Your task to perform on an android device: What's the weather going to be tomorrow? Image 0: 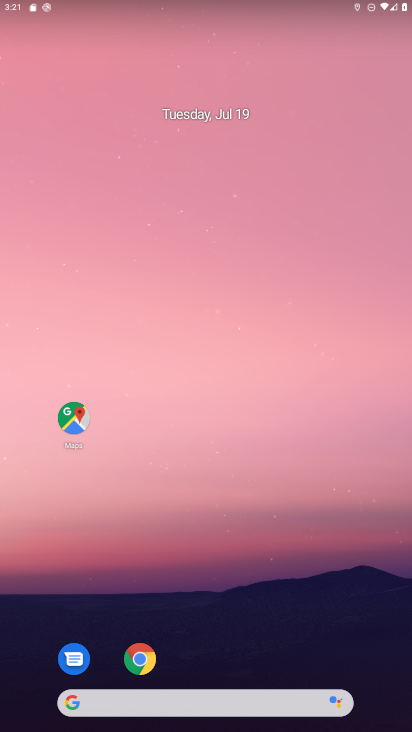
Step 0: click (197, 704)
Your task to perform on an android device: What's the weather going to be tomorrow? Image 1: 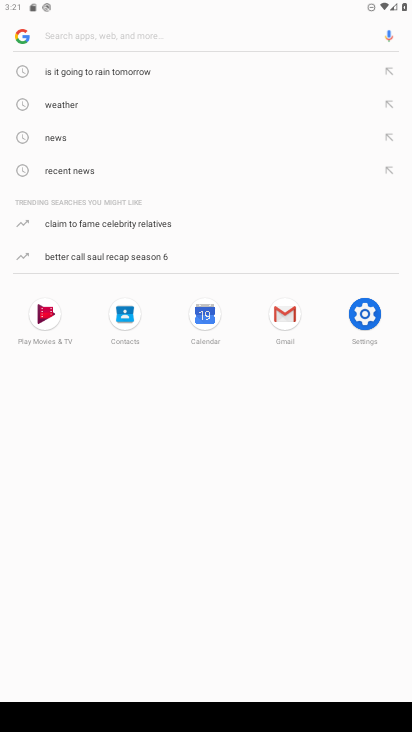
Step 1: type "what's the weather going to be tomorrow"
Your task to perform on an android device: What's the weather going to be tomorrow? Image 2: 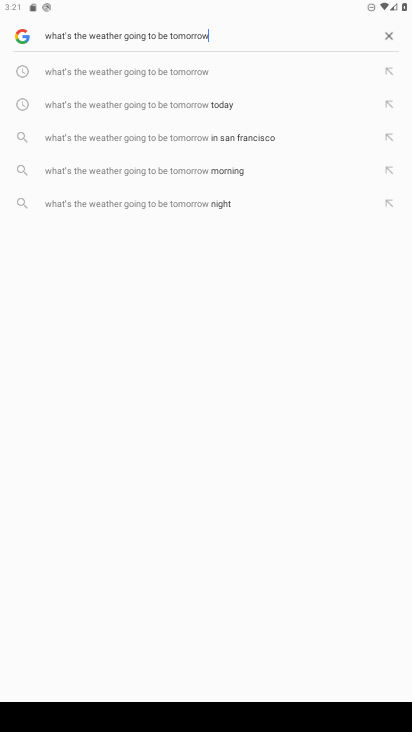
Step 2: click (156, 71)
Your task to perform on an android device: What's the weather going to be tomorrow? Image 3: 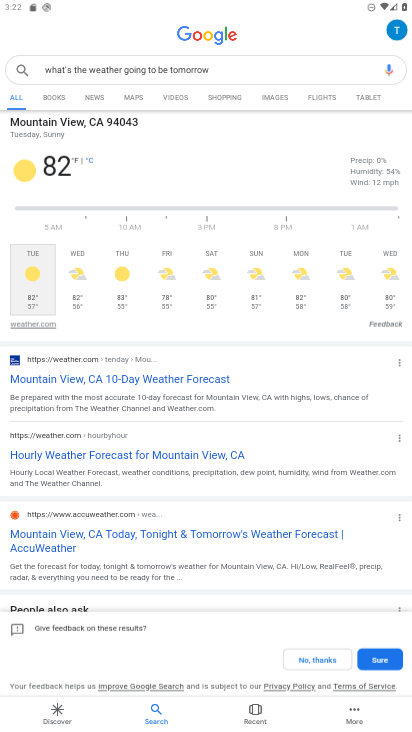
Step 3: task complete